Your task to perform on an android device: Open Android settings Image 0: 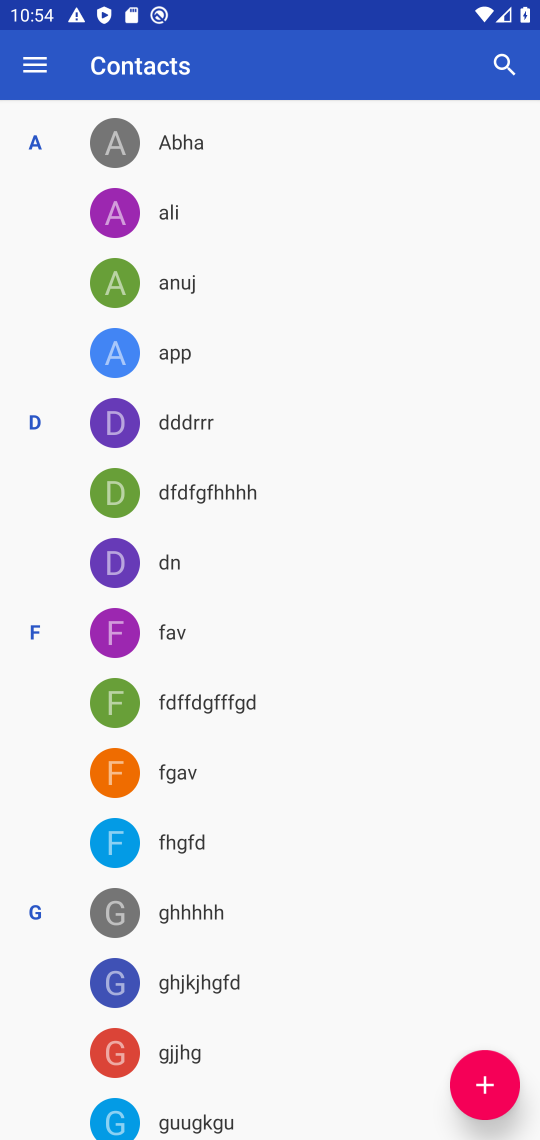
Step 0: press home button
Your task to perform on an android device: Open Android settings Image 1: 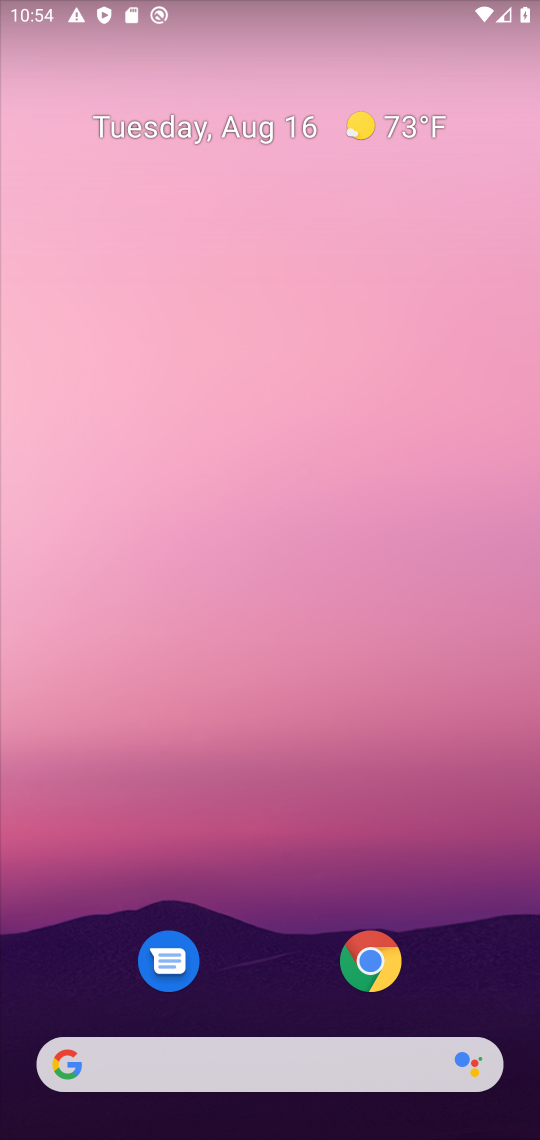
Step 1: click (288, 474)
Your task to perform on an android device: Open Android settings Image 2: 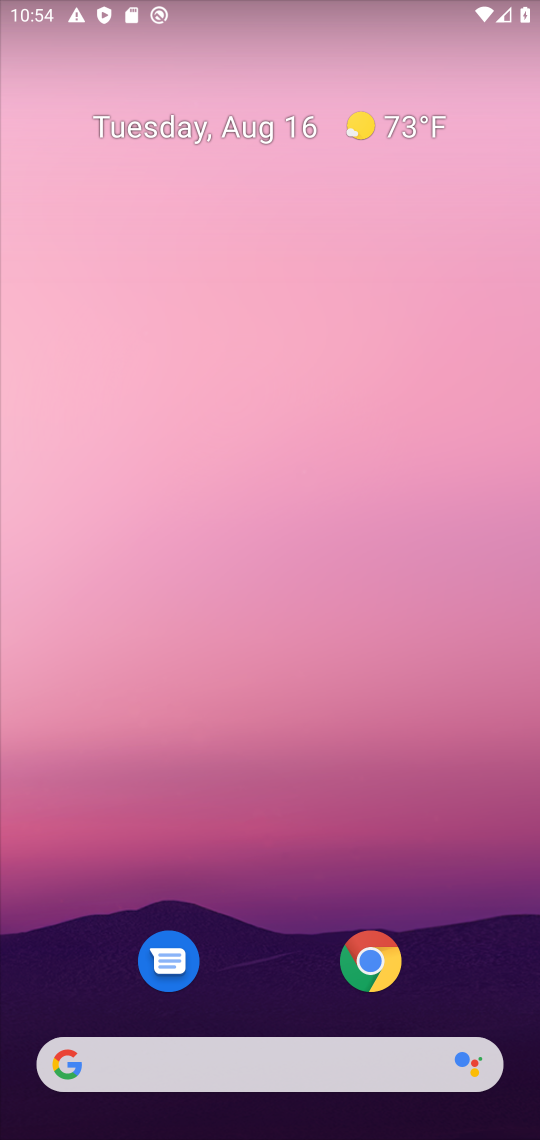
Step 2: drag from (254, 771) to (270, 205)
Your task to perform on an android device: Open Android settings Image 3: 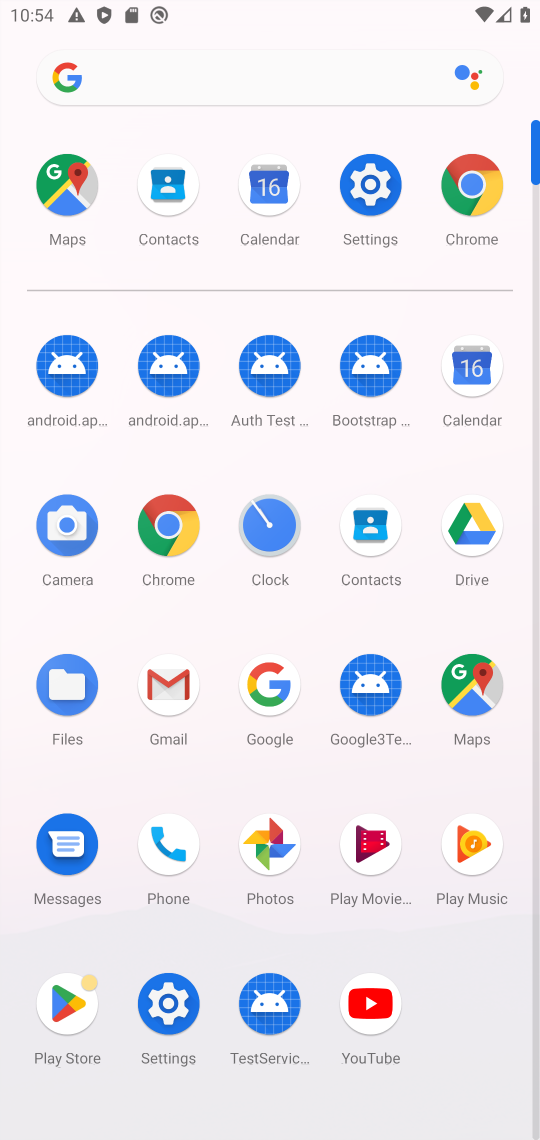
Step 3: click (365, 181)
Your task to perform on an android device: Open Android settings Image 4: 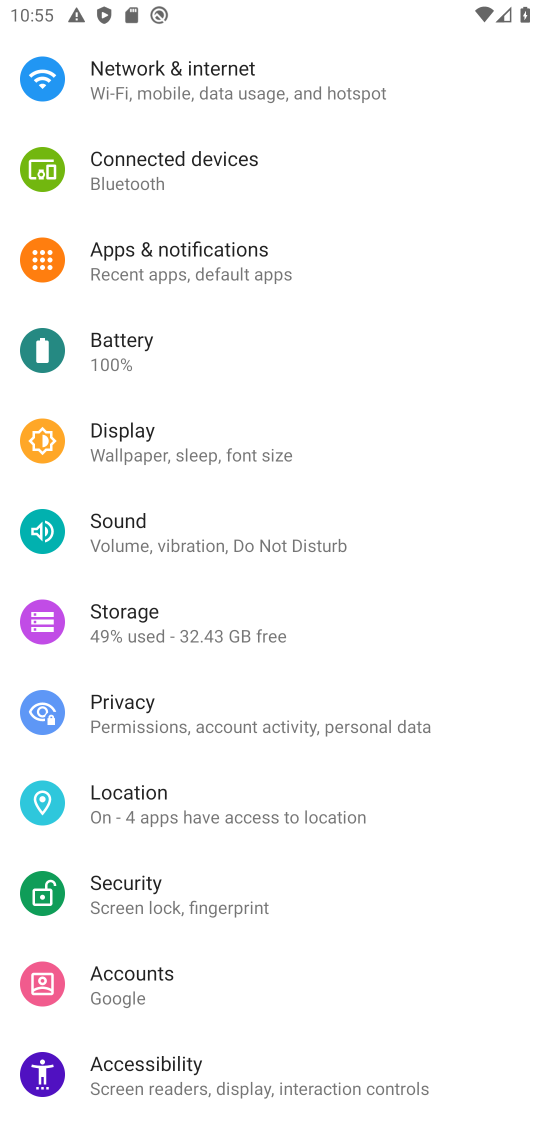
Step 4: task complete